Your task to perform on an android device: Show me popular videos on Youtube Image 0: 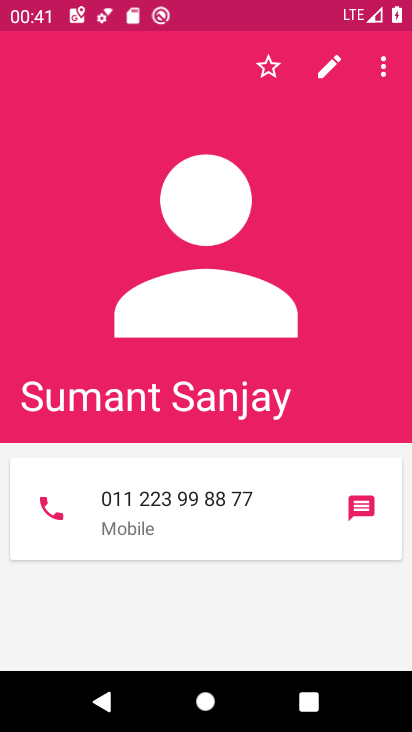
Step 0: press home button
Your task to perform on an android device: Show me popular videos on Youtube Image 1: 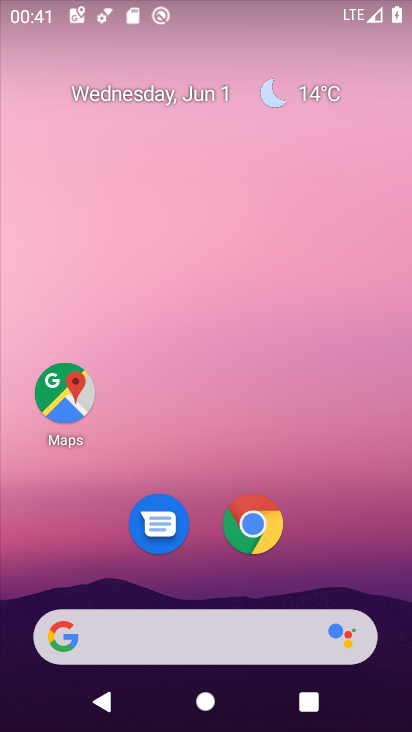
Step 1: drag from (305, 574) to (308, 43)
Your task to perform on an android device: Show me popular videos on Youtube Image 2: 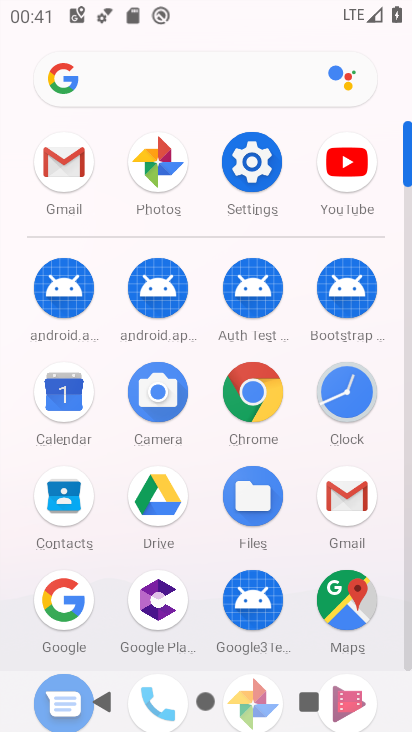
Step 2: drag from (294, 439) to (323, 126)
Your task to perform on an android device: Show me popular videos on Youtube Image 3: 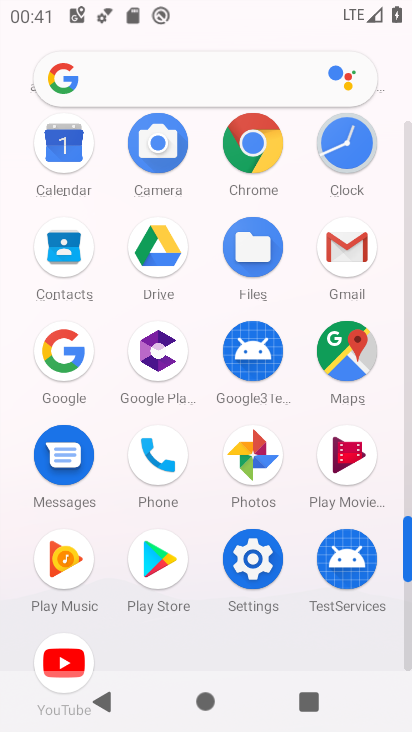
Step 3: click (65, 649)
Your task to perform on an android device: Show me popular videos on Youtube Image 4: 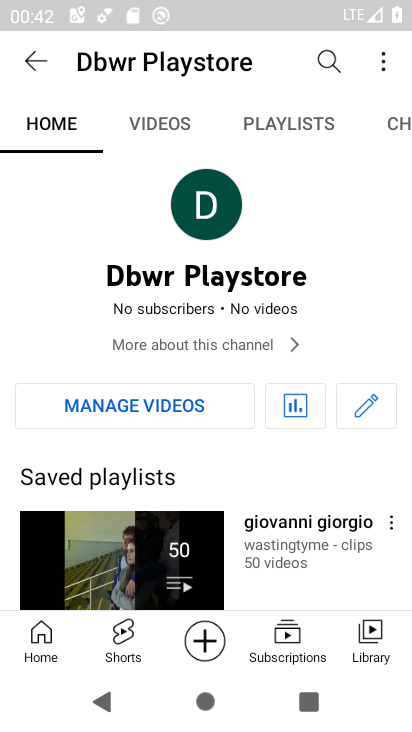
Step 4: click (322, 60)
Your task to perform on an android device: Show me popular videos on Youtube Image 5: 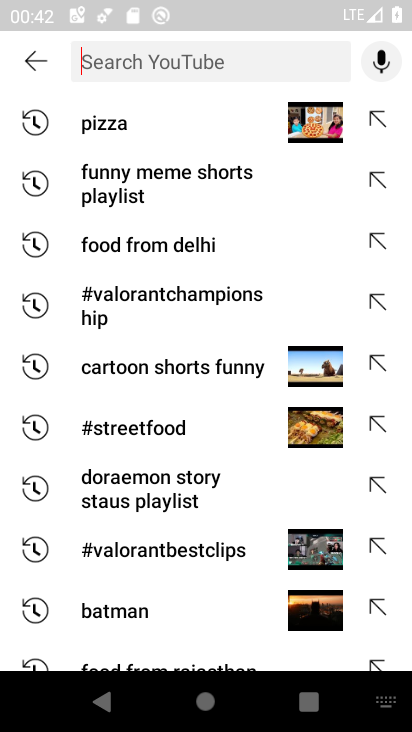
Step 5: click (260, 68)
Your task to perform on an android device: Show me popular videos on Youtube Image 6: 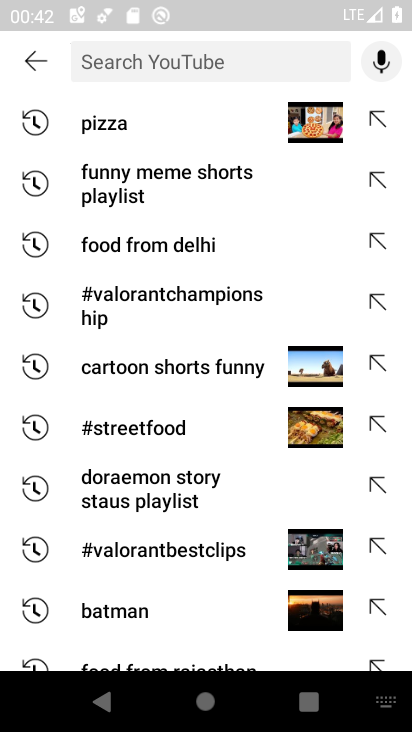
Step 6: type "popular videos"
Your task to perform on an android device: Show me popular videos on Youtube Image 7: 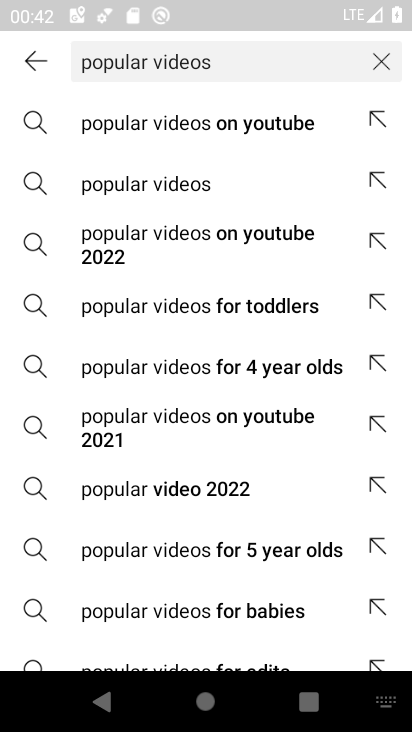
Step 7: click (219, 122)
Your task to perform on an android device: Show me popular videos on Youtube Image 8: 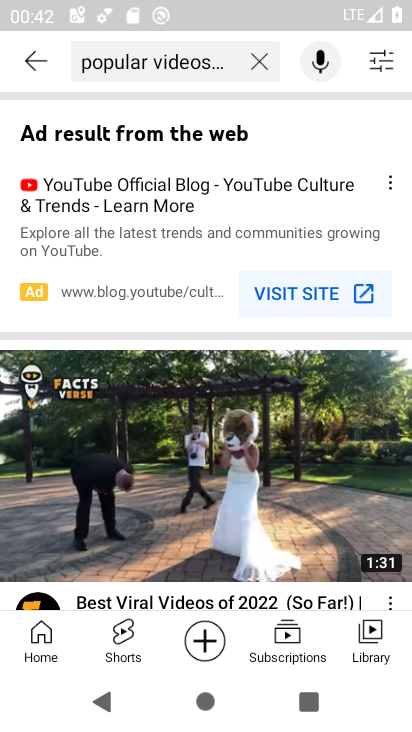
Step 8: drag from (255, 433) to (262, 142)
Your task to perform on an android device: Show me popular videos on Youtube Image 9: 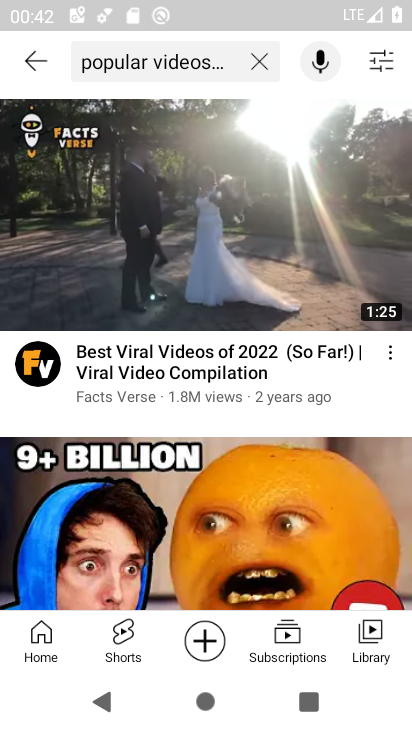
Step 9: click (256, 198)
Your task to perform on an android device: Show me popular videos on Youtube Image 10: 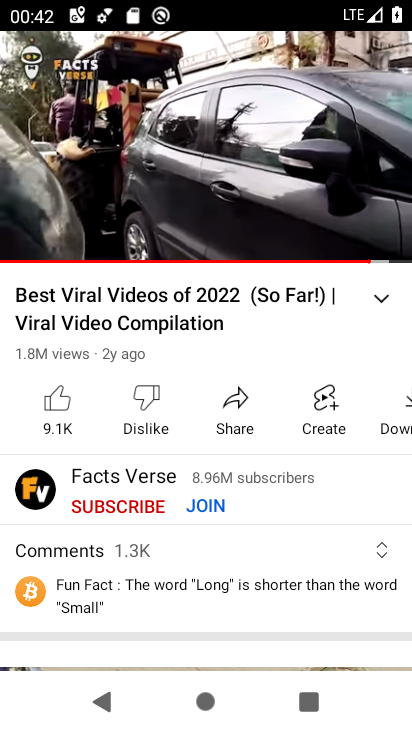
Step 10: task complete